Your task to perform on an android device: turn on airplane mode Image 0: 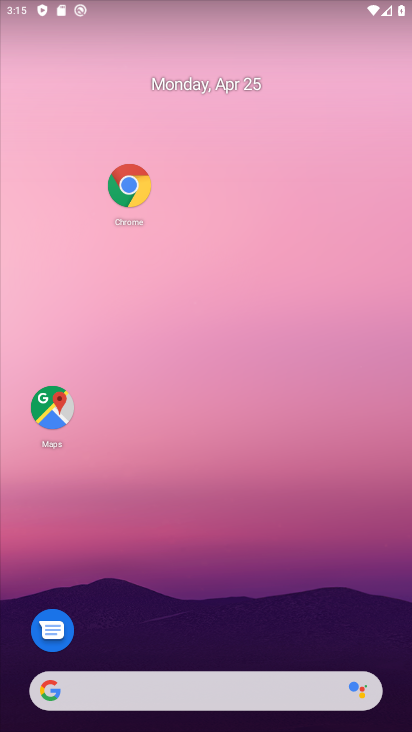
Step 0: drag from (179, 656) to (240, 135)
Your task to perform on an android device: turn on airplane mode Image 1: 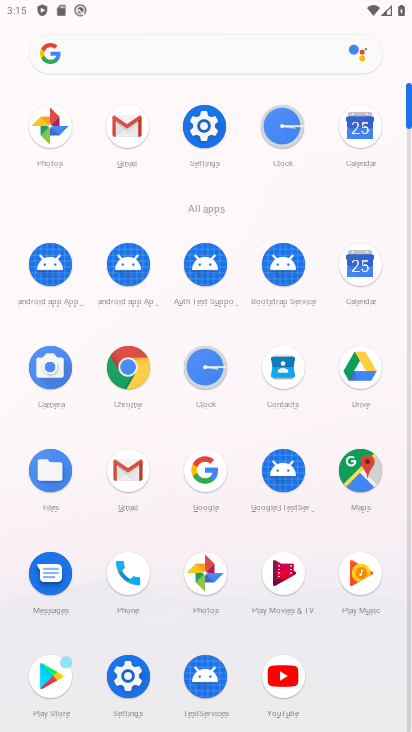
Step 1: click (127, 676)
Your task to perform on an android device: turn on airplane mode Image 2: 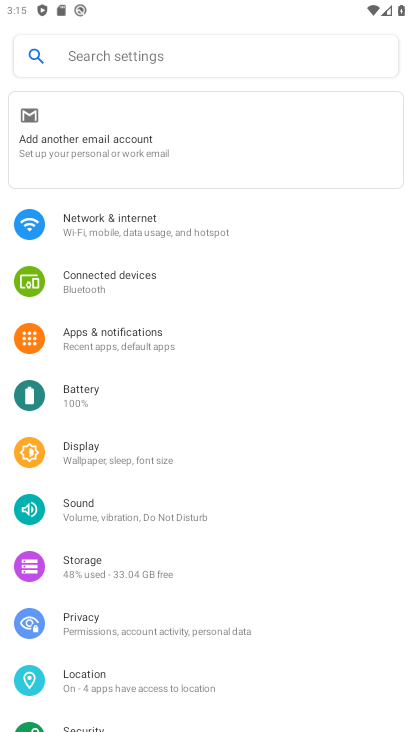
Step 2: click (122, 230)
Your task to perform on an android device: turn on airplane mode Image 3: 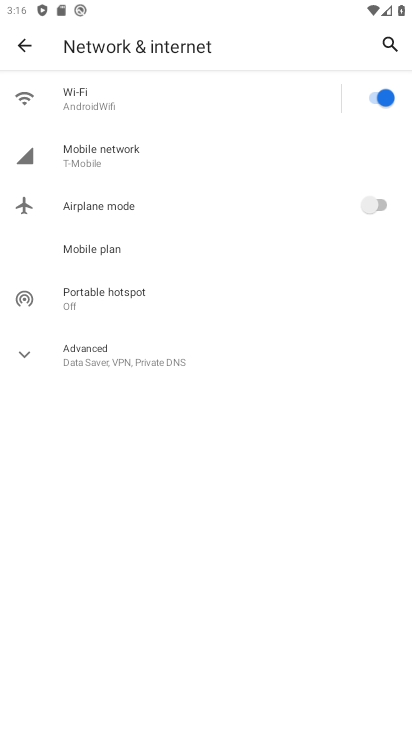
Step 3: click (159, 217)
Your task to perform on an android device: turn on airplane mode Image 4: 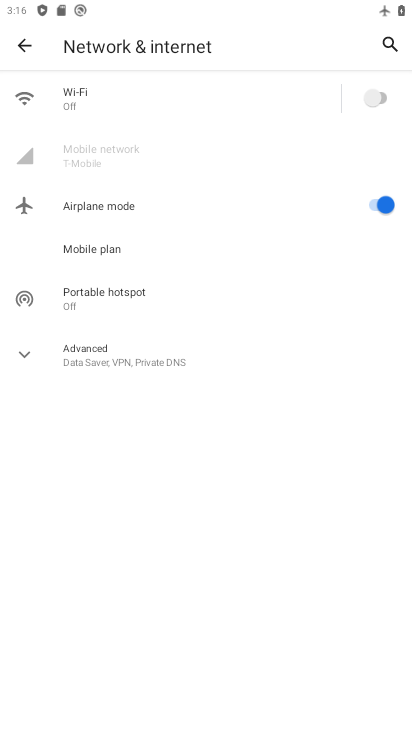
Step 4: click (374, 202)
Your task to perform on an android device: turn on airplane mode Image 5: 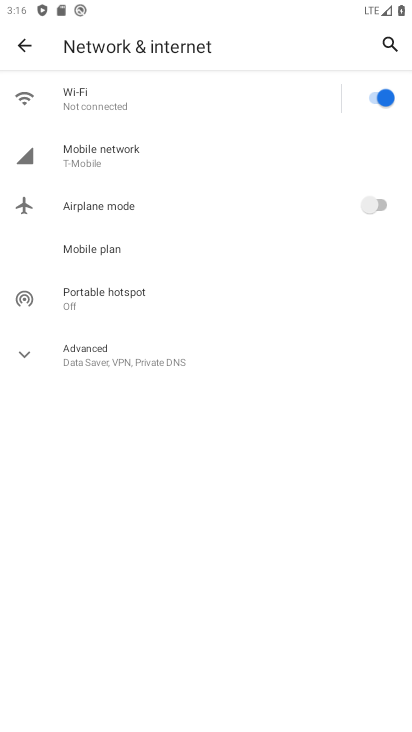
Step 5: task complete